Your task to perform on an android device: Open display settings Image 0: 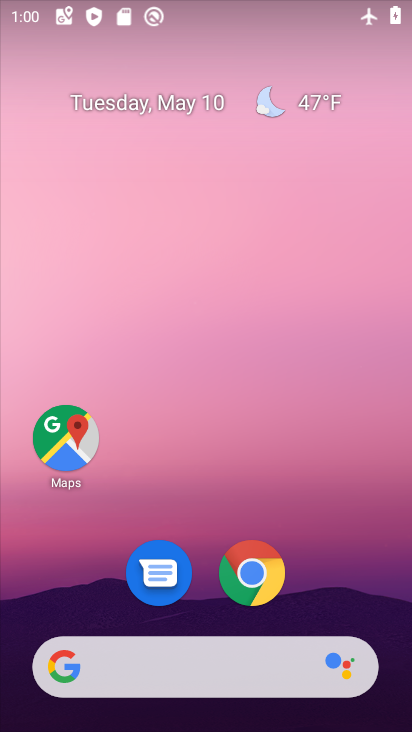
Step 0: drag from (204, 606) to (333, 24)
Your task to perform on an android device: Open display settings Image 1: 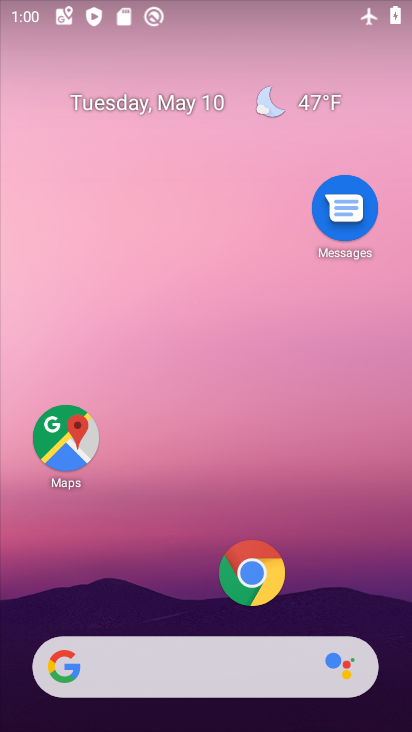
Step 1: drag from (185, 621) to (273, 110)
Your task to perform on an android device: Open display settings Image 2: 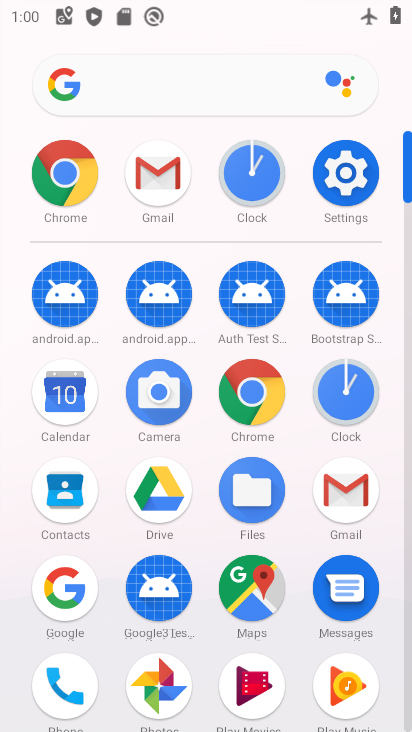
Step 2: click (348, 177)
Your task to perform on an android device: Open display settings Image 3: 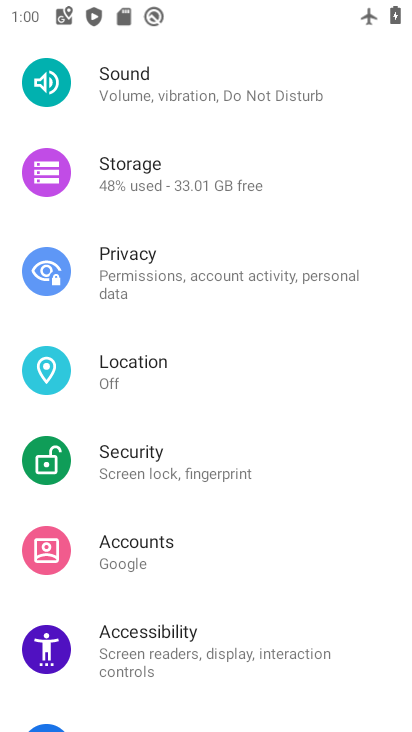
Step 3: drag from (176, 144) to (206, 564)
Your task to perform on an android device: Open display settings Image 4: 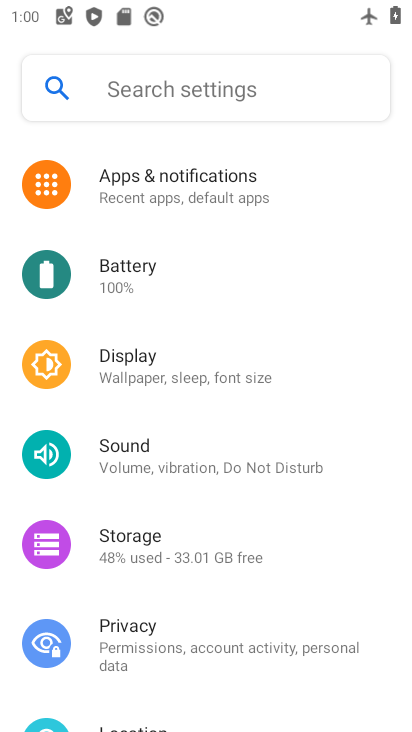
Step 4: click (163, 364)
Your task to perform on an android device: Open display settings Image 5: 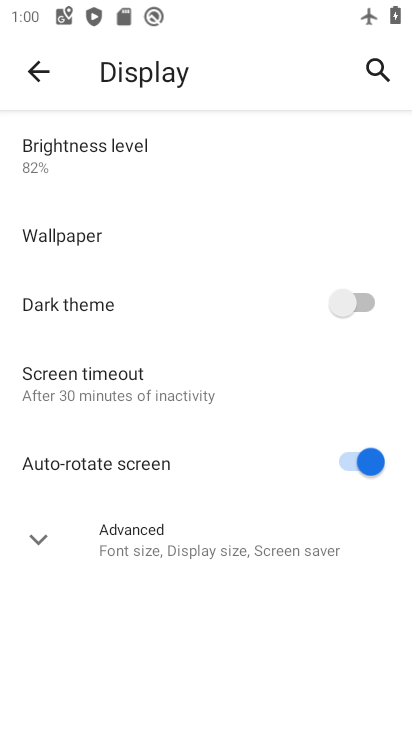
Step 5: task complete